Your task to perform on an android device: Open Maps and search for coffee Image 0: 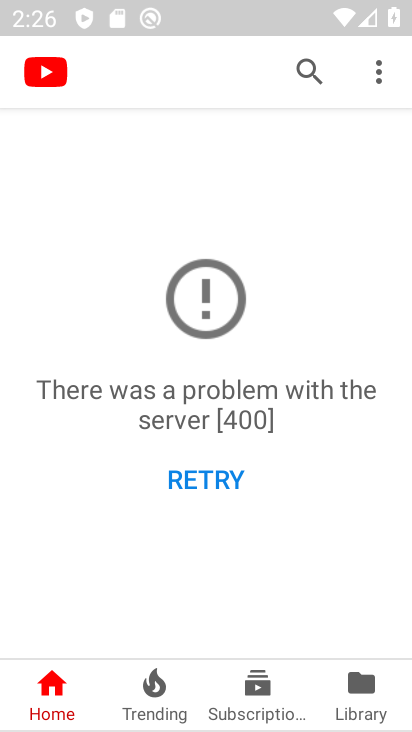
Step 0: press home button
Your task to perform on an android device: Open Maps and search for coffee Image 1: 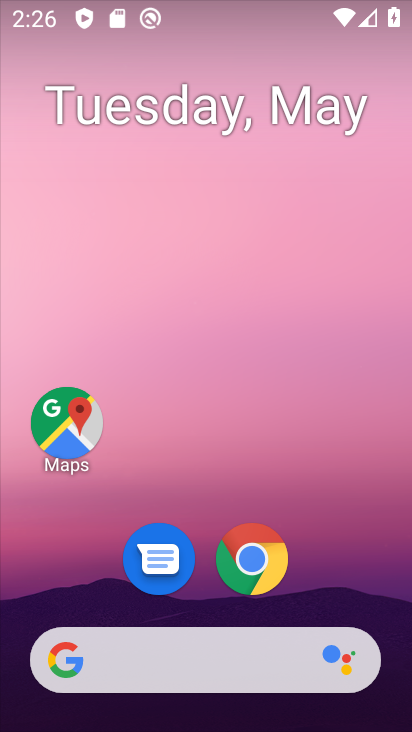
Step 1: click (65, 419)
Your task to perform on an android device: Open Maps and search for coffee Image 2: 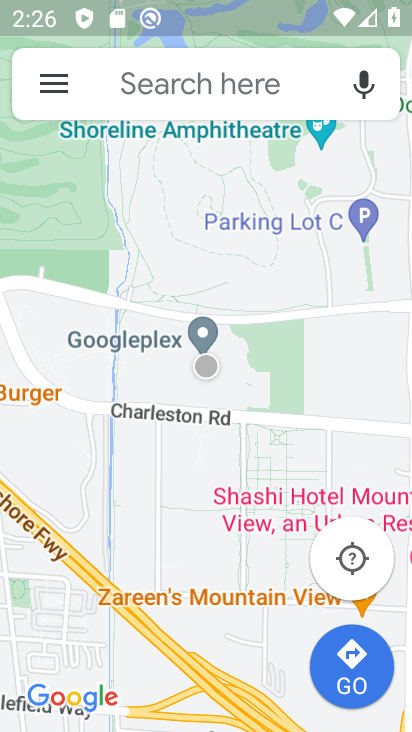
Step 2: task complete